Your task to perform on an android device: turn on showing notifications on the lock screen Image 0: 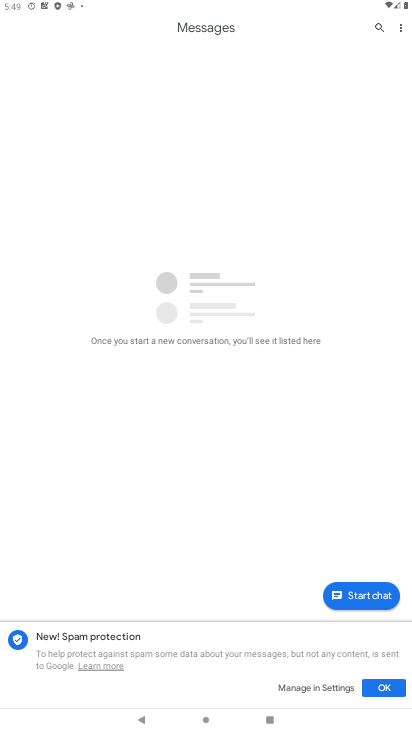
Step 0: press home button
Your task to perform on an android device: turn on showing notifications on the lock screen Image 1: 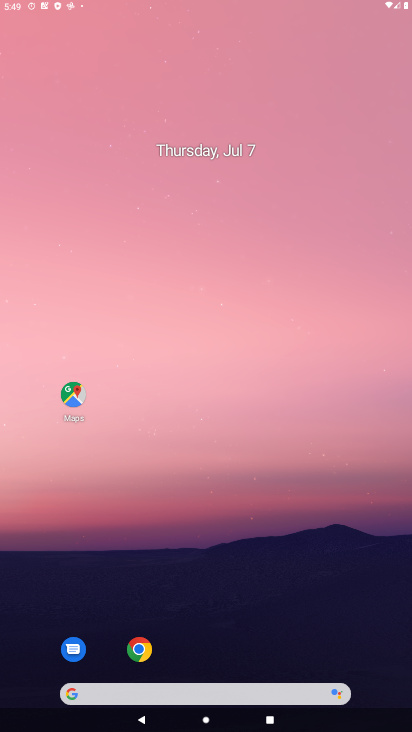
Step 1: drag from (393, 652) to (229, 44)
Your task to perform on an android device: turn on showing notifications on the lock screen Image 2: 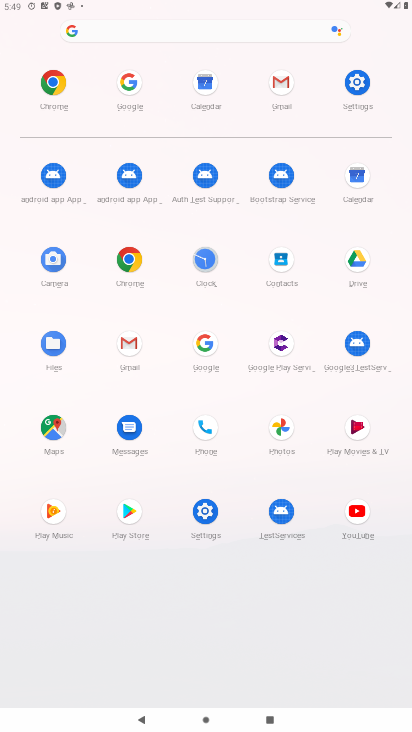
Step 2: click (346, 100)
Your task to perform on an android device: turn on showing notifications on the lock screen Image 3: 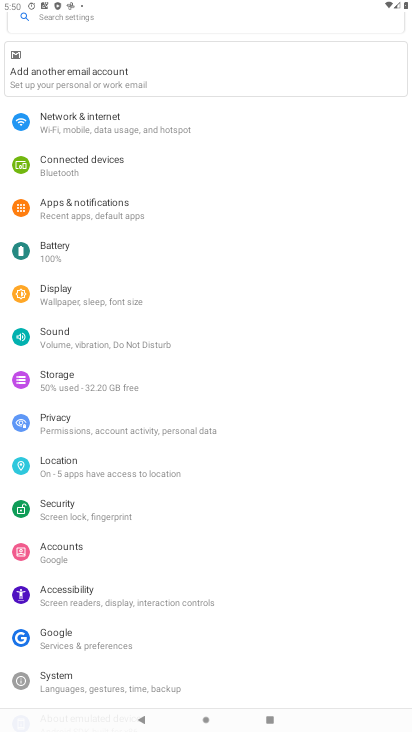
Step 3: click (100, 204)
Your task to perform on an android device: turn on showing notifications on the lock screen Image 4: 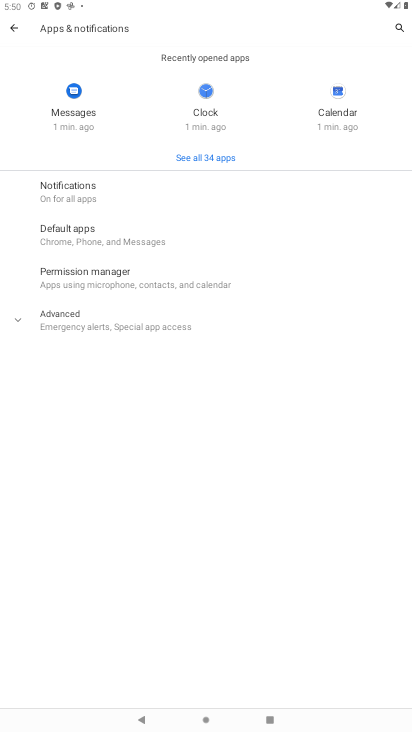
Step 4: click (87, 189)
Your task to perform on an android device: turn on showing notifications on the lock screen Image 5: 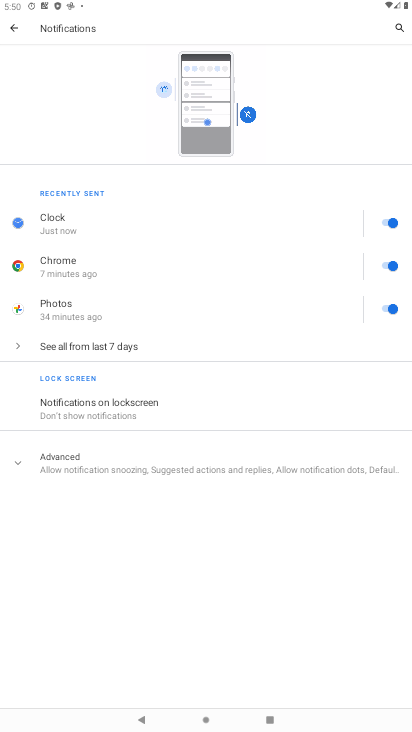
Step 5: click (68, 404)
Your task to perform on an android device: turn on showing notifications on the lock screen Image 6: 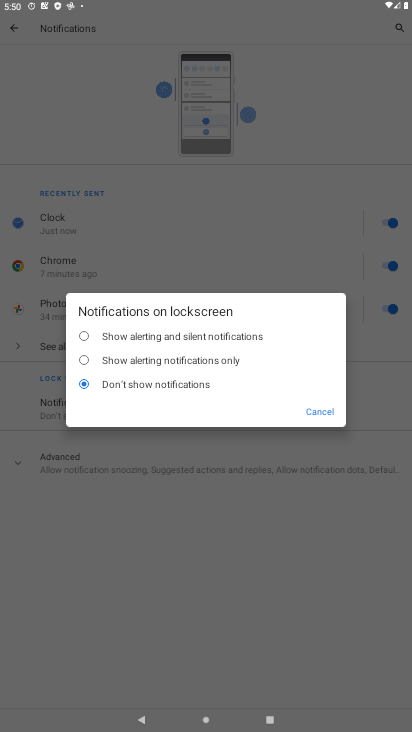
Step 6: click (93, 330)
Your task to perform on an android device: turn on showing notifications on the lock screen Image 7: 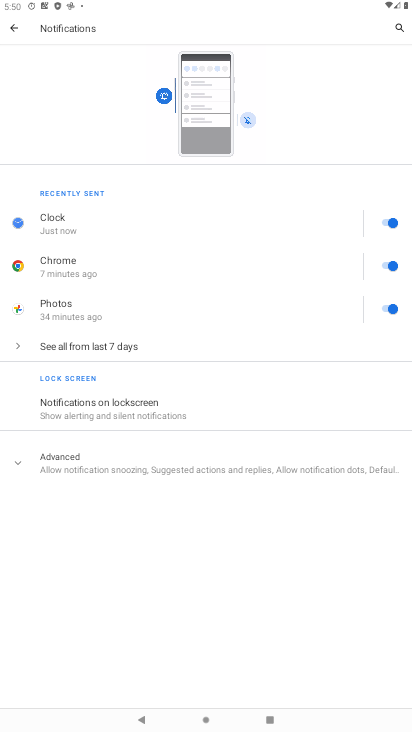
Step 7: task complete